Your task to perform on an android device: Go to accessibility settings Image 0: 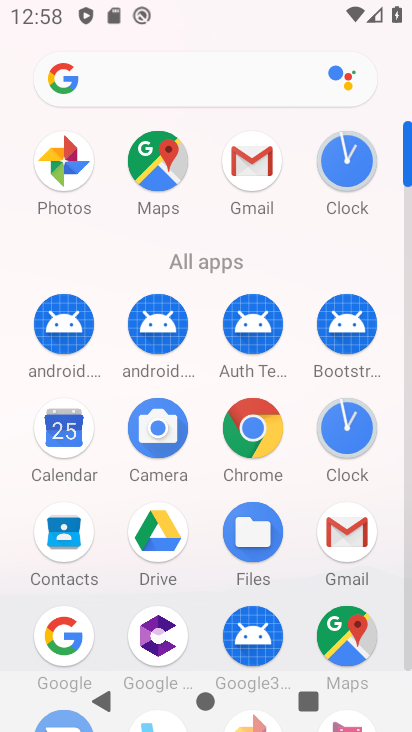
Step 0: drag from (219, 582) to (411, 65)
Your task to perform on an android device: Go to accessibility settings Image 1: 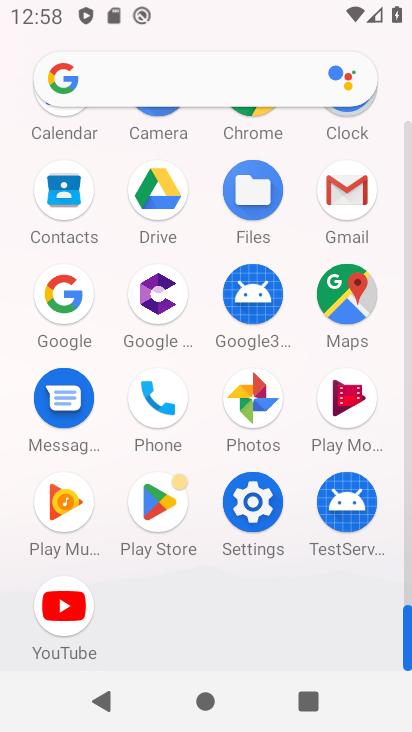
Step 1: click (252, 492)
Your task to perform on an android device: Go to accessibility settings Image 2: 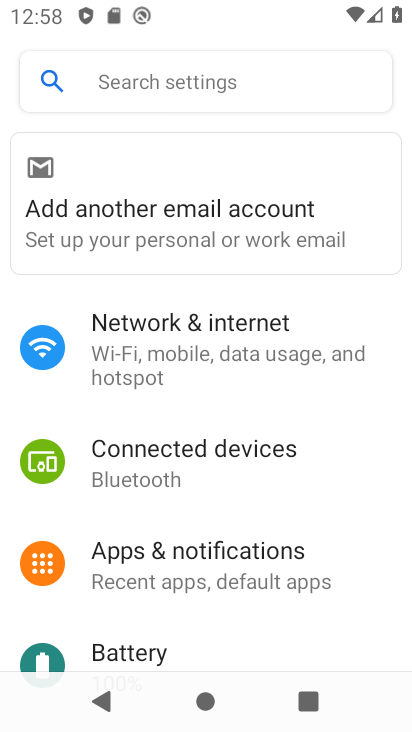
Step 2: drag from (222, 632) to (409, 154)
Your task to perform on an android device: Go to accessibility settings Image 3: 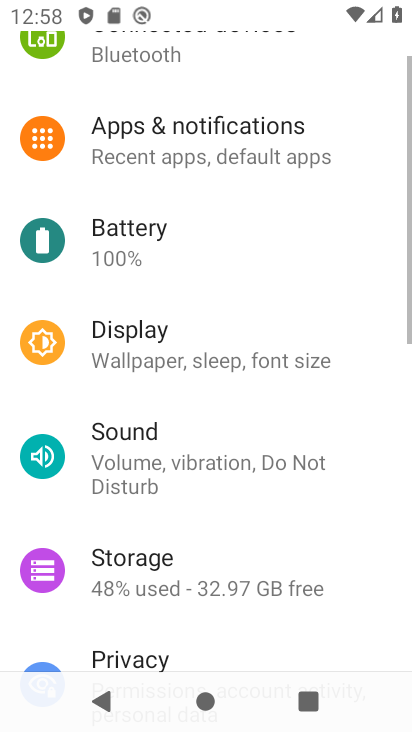
Step 3: drag from (240, 651) to (356, 155)
Your task to perform on an android device: Go to accessibility settings Image 4: 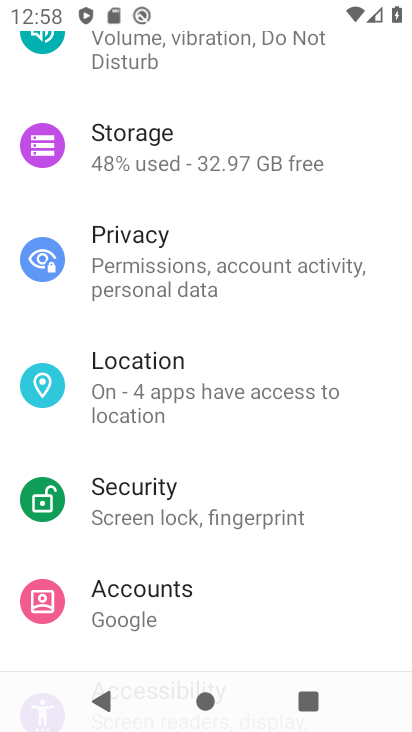
Step 4: drag from (226, 604) to (344, 167)
Your task to perform on an android device: Go to accessibility settings Image 5: 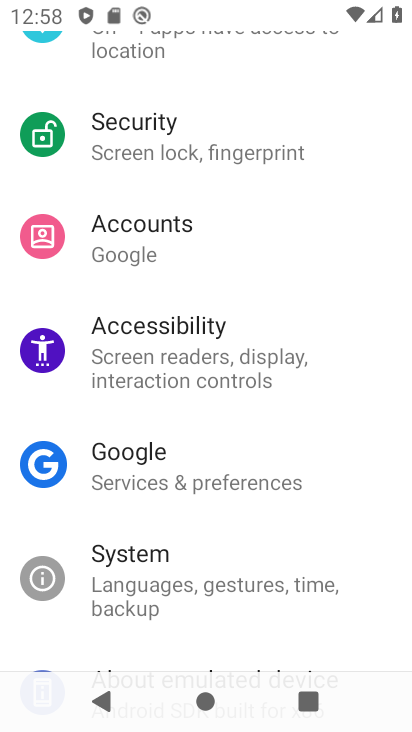
Step 5: click (177, 358)
Your task to perform on an android device: Go to accessibility settings Image 6: 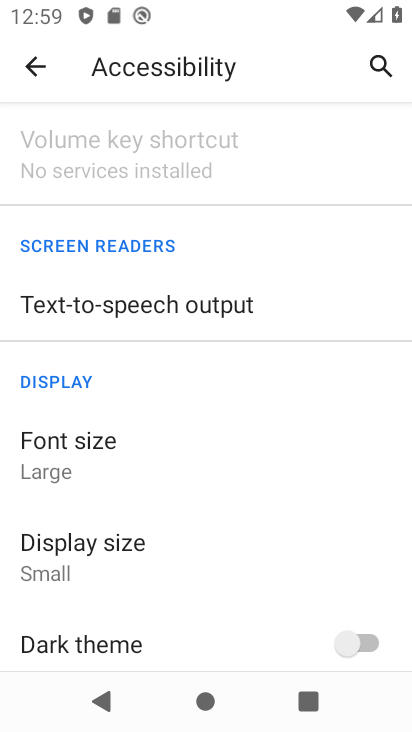
Step 6: task complete